Your task to perform on an android device: star an email in the gmail app Image 0: 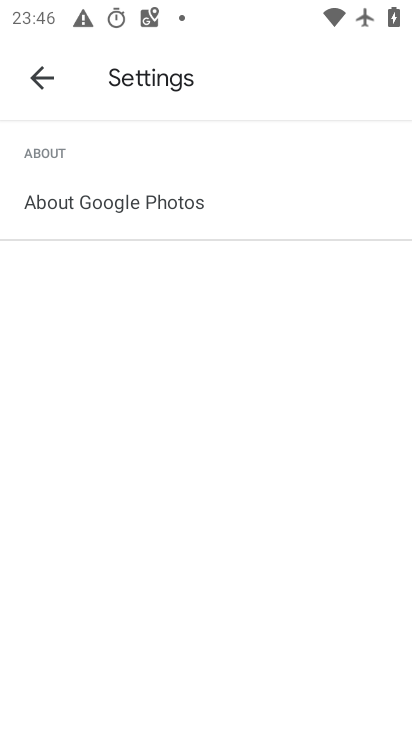
Step 0: drag from (294, 675) to (204, 210)
Your task to perform on an android device: star an email in the gmail app Image 1: 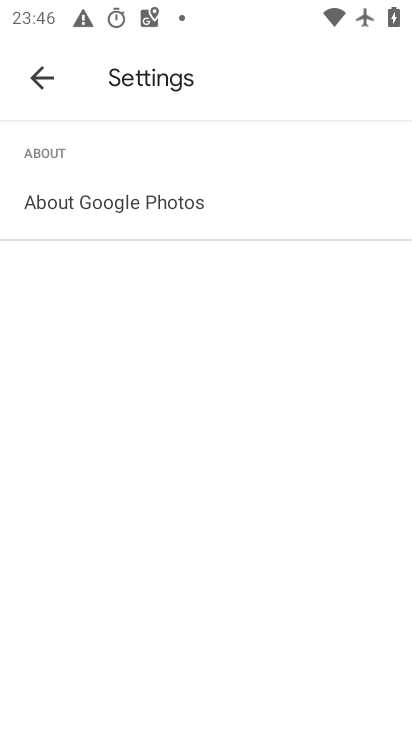
Step 1: click (45, 75)
Your task to perform on an android device: star an email in the gmail app Image 2: 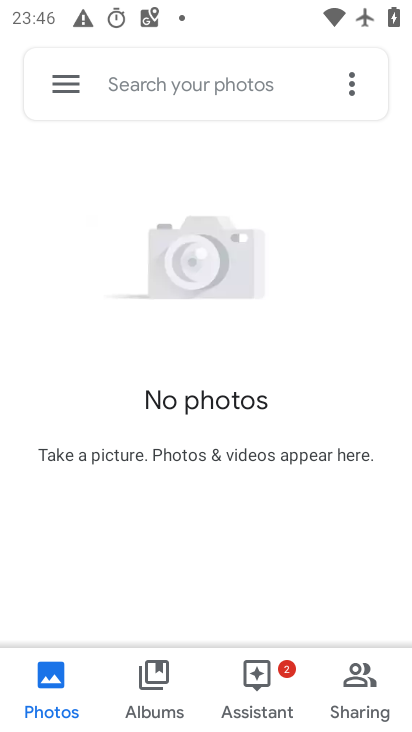
Step 2: press back button
Your task to perform on an android device: star an email in the gmail app Image 3: 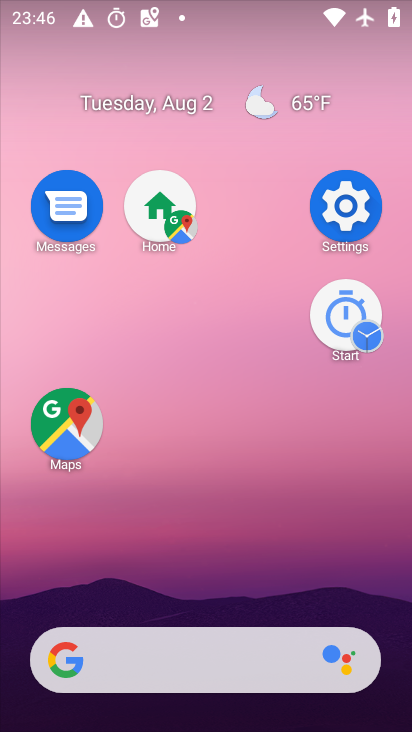
Step 3: drag from (214, 461) to (169, 146)
Your task to perform on an android device: star an email in the gmail app Image 4: 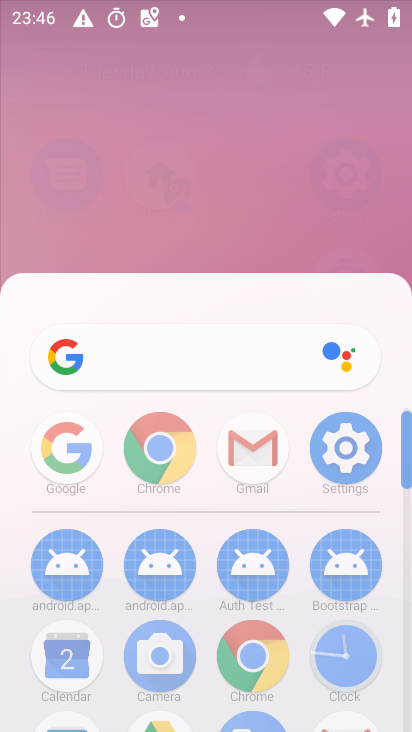
Step 4: drag from (195, 533) to (224, 160)
Your task to perform on an android device: star an email in the gmail app Image 5: 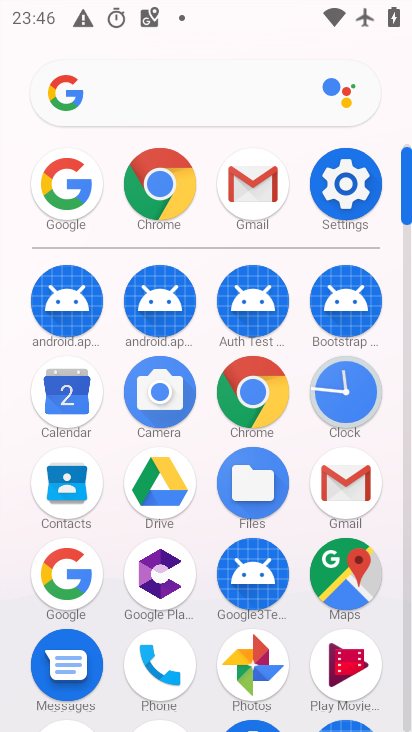
Step 5: drag from (193, 365) to (230, 79)
Your task to perform on an android device: star an email in the gmail app Image 6: 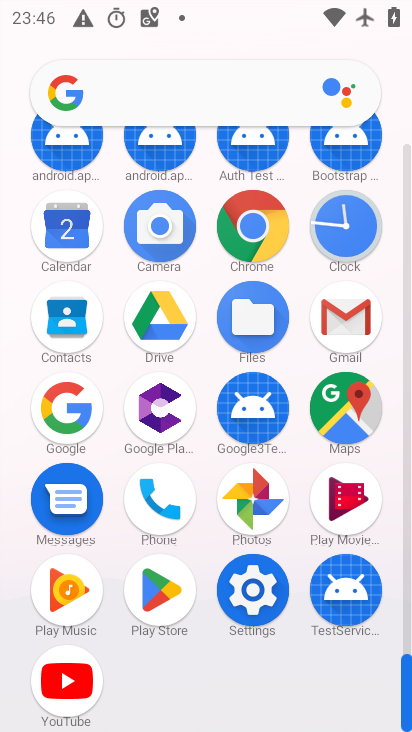
Step 6: click (341, 332)
Your task to perform on an android device: star an email in the gmail app Image 7: 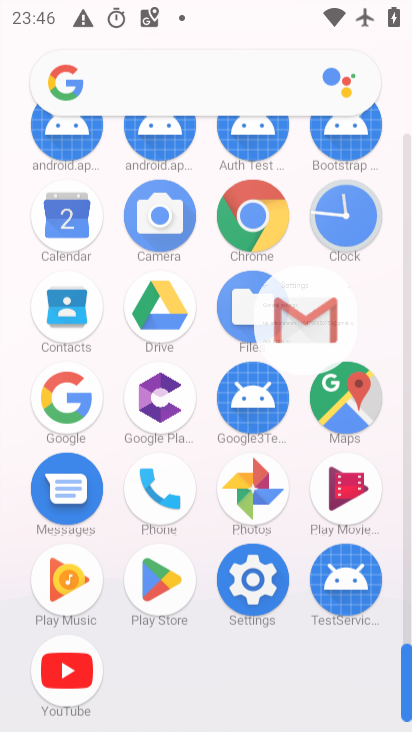
Step 7: click (340, 331)
Your task to perform on an android device: star an email in the gmail app Image 8: 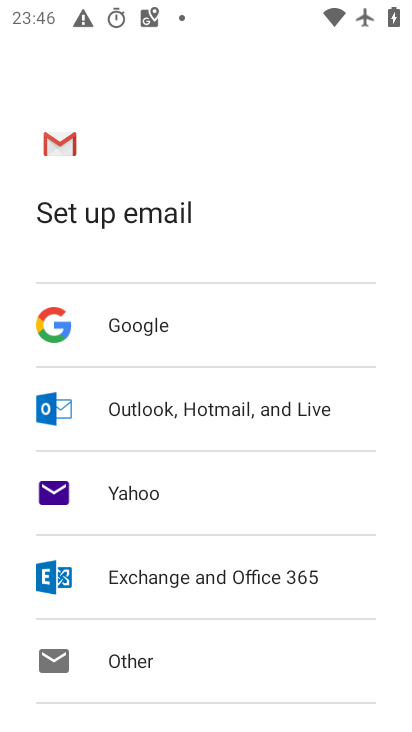
Step 8: press back button
Your task to perform on an android device: star an email in the gmail app Image 9: 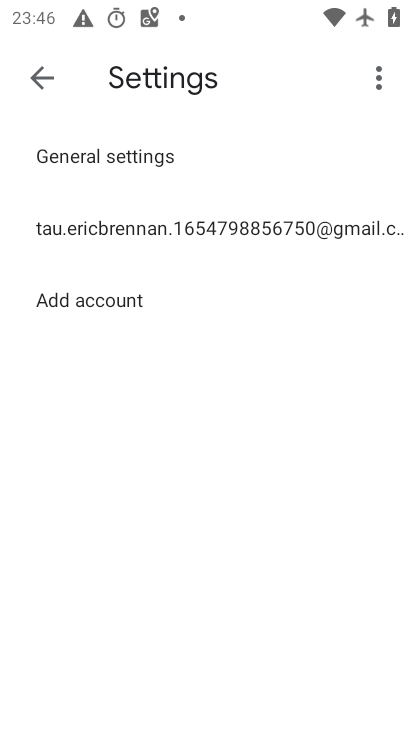
Step 9: click (35, 70)
Your task to perform on an android device: star an email in the gmail app Image 10: 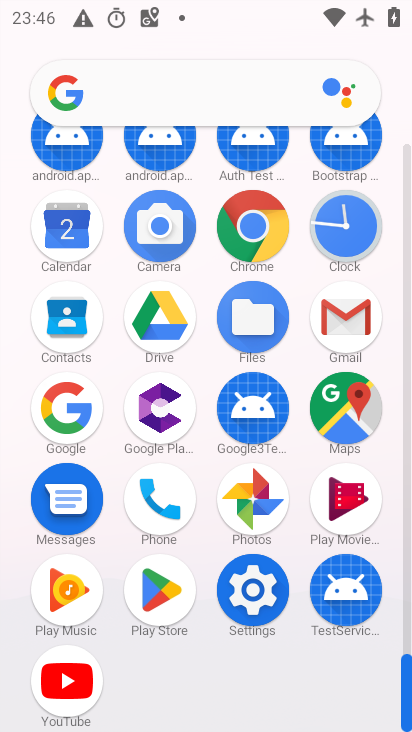
Step 10: click (330, 309)
Your task to perform on an android device: star an email in the gmail app Image 11: 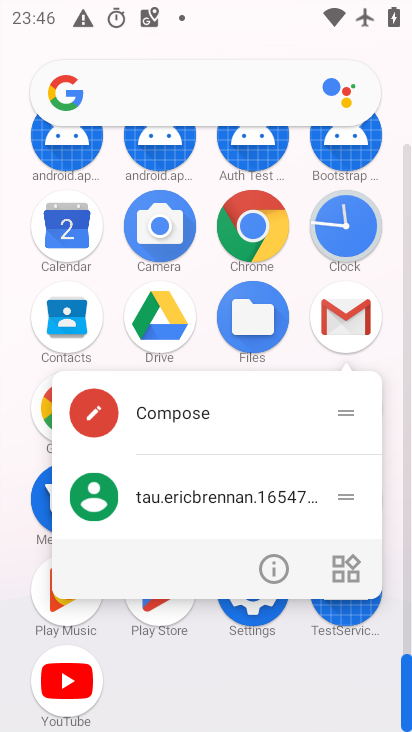
Step 11: click (184, 417)
Your task to perform on an android device: star an email in the gmail app Image 12: 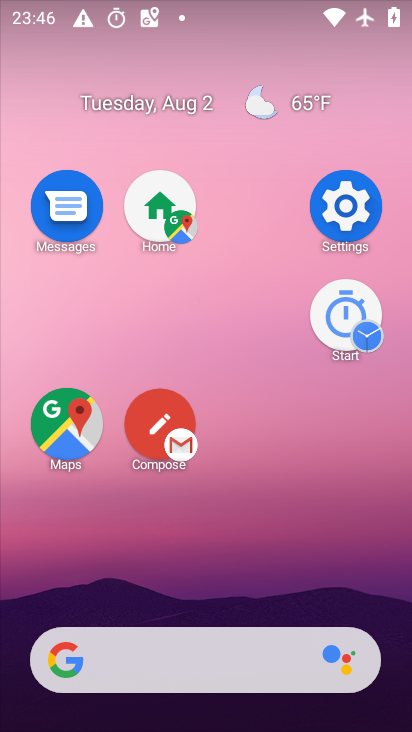
Step 12: drag from (210, 236) to (239, 218)
Your task to perform on an android device: star an email in the gmail app Image 13: 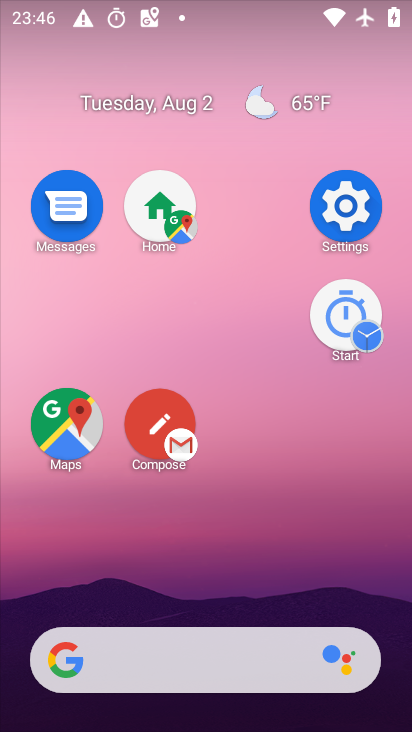
Step 13: drag from (261, 603) to (234, 196)
Your task to perform on an android device: star an email in the gmail app Image 14: 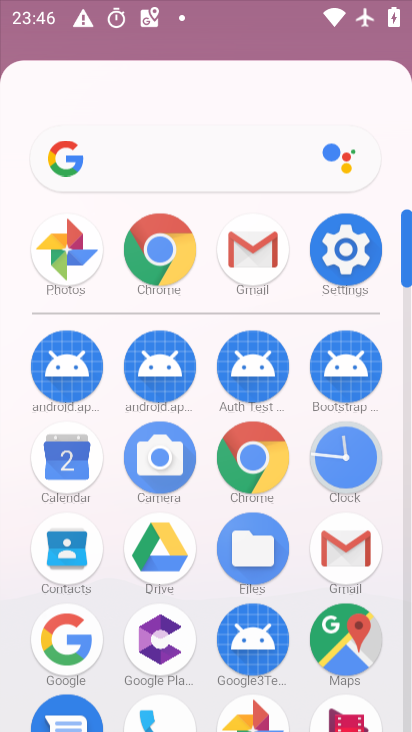
Step 14: drag from (270, 493) to (218, 240)
Your task to perform on an android device: star an email in the gmail app Image 15: 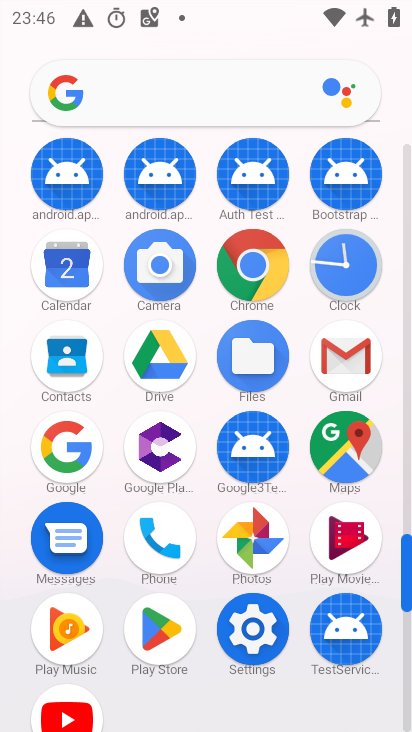
Step 15: click (351, 347)
Your task to perform on an android device: star an email in the gmail app Image 16: 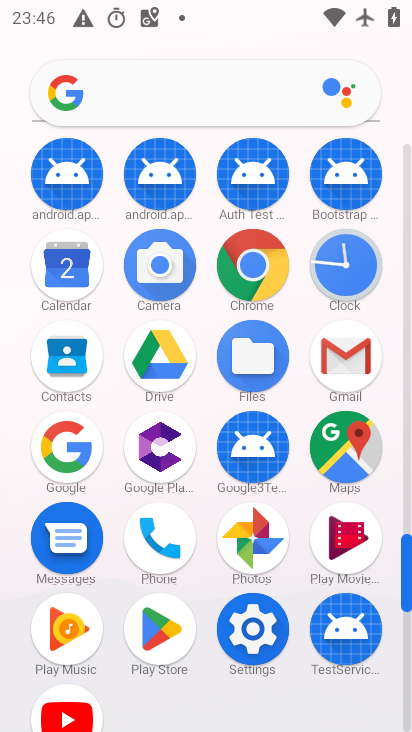
Step 16: click (351, 348)
Your task to perform on an android device: star an email in the gmail app Image 17: 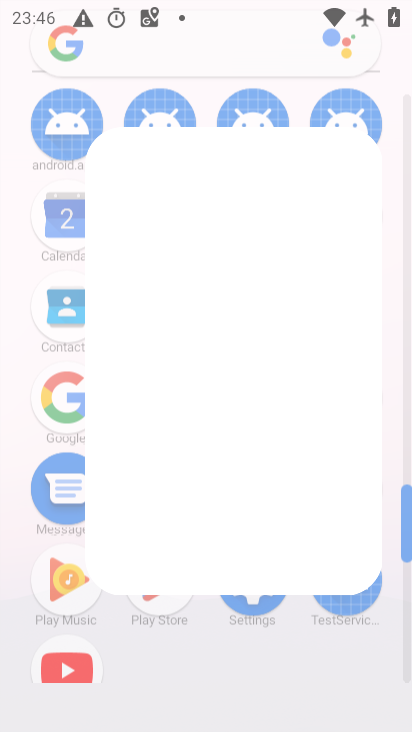
Step 17: click (348, 354)
Your task to perform on an android device: star an email in the gmail app Image 18: 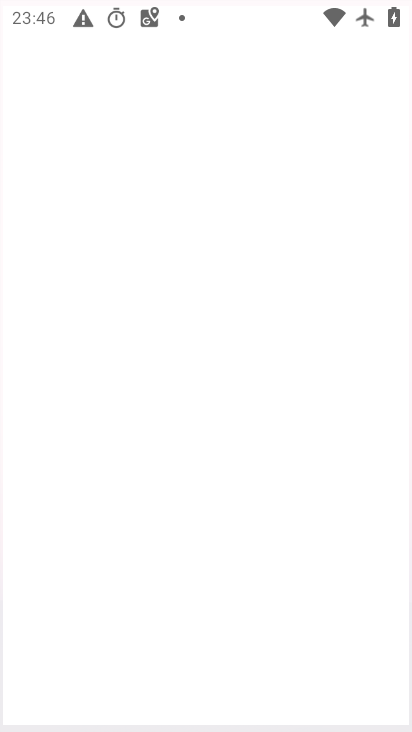
Step 18: click (347, 354)
Your task to perform on an android device: star an email in the gmail app Image 19: 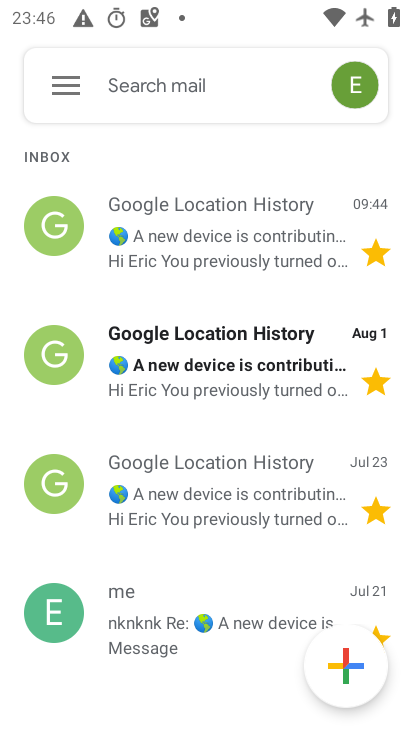
Step 19: task complete